Your task to perform on an android device: empty trash in google photos Image 0: 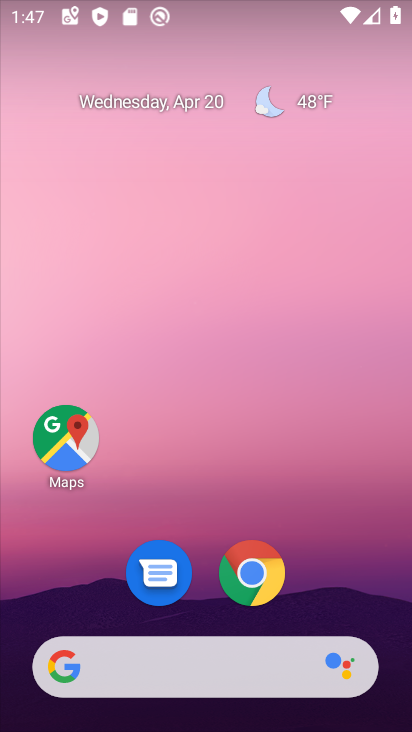
Step 0: drag from (138, 660) to (282, 106)
Your task to perform on an android device: empty trash in google photos Image 1: 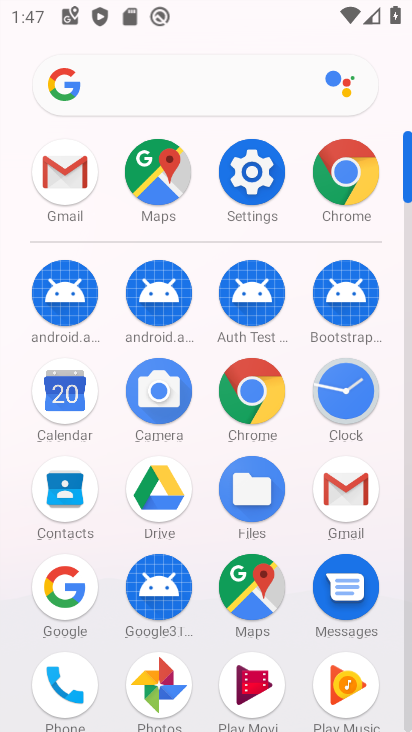
Step 1: click (158, 670)
Your task to perform on an android device: empty trash in google photos Image 2: 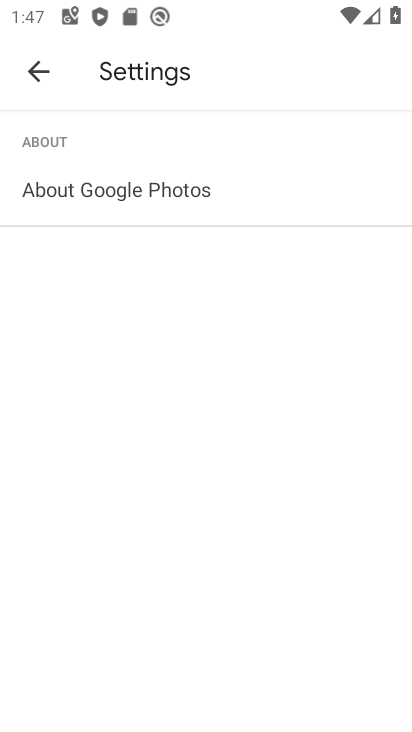
Step 2: click (44, 70)
Your task to perform on an android device: empty trash in google photos Image 3: 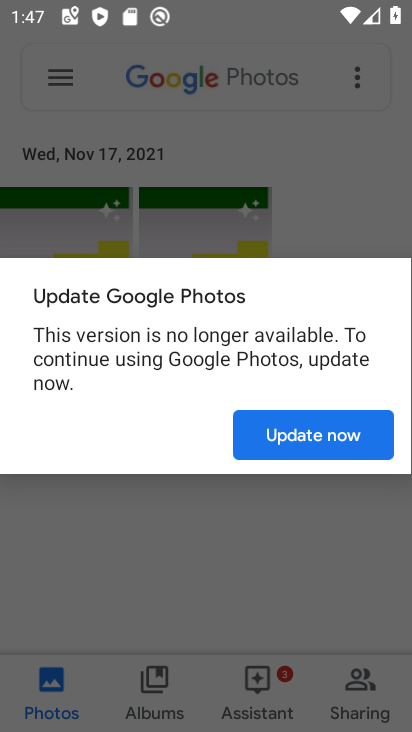
Step 3: click (323, 428)
Your task to perform on an android device: empty trash in google photos Image 4: 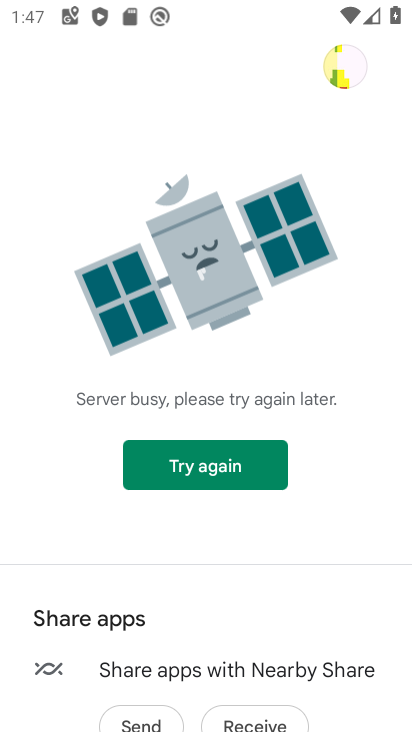
Step 4: press back button
Your task to perform on an android device: empty trash in google photos Image 5: 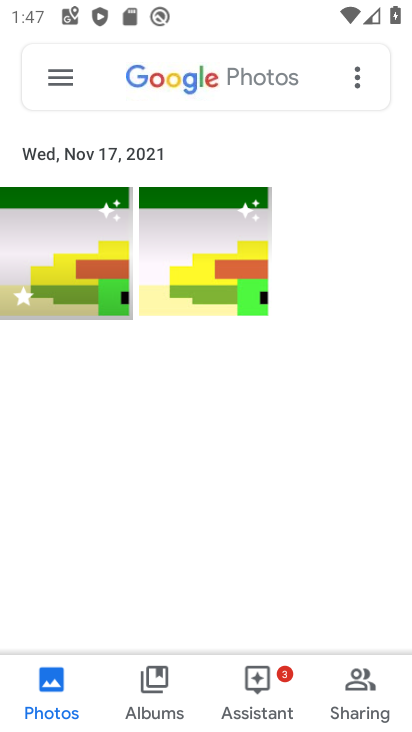
Step 5: click (61, 80)
Your task to perform on an android device: empty trash in google photos Image 6: 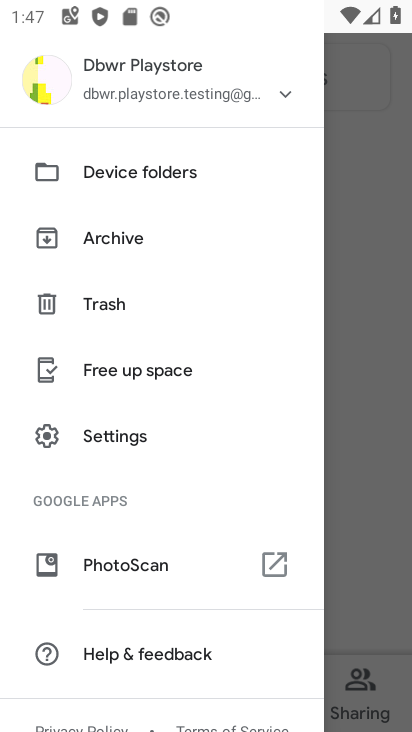
Step 6: click (99, 300)
Your task to perform on an android device: empty trash in google photos Image 7: 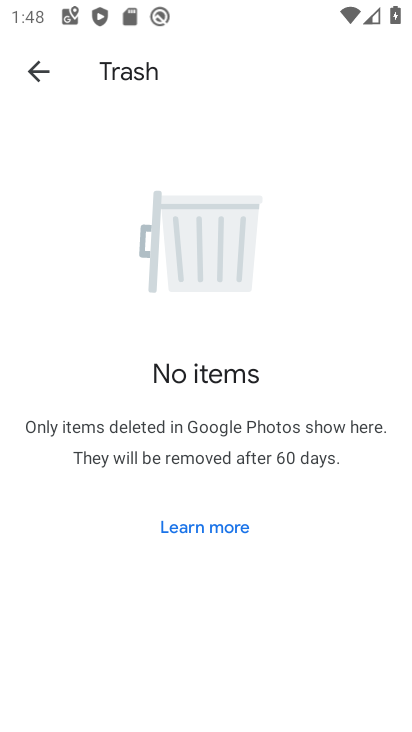
Step 7: task complete